Your task to perform on an android device: Is it going to rain this weekend? Image 0: 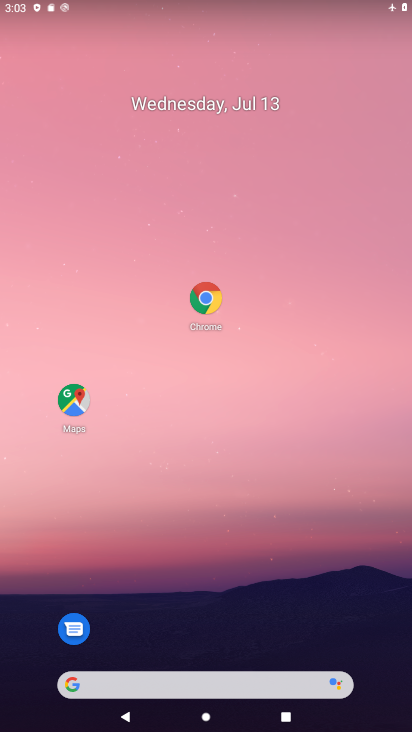
Step 0: drag from (146, 622) to (232, 122)
Your task to perform on an android device: Is it going to rain this weekend? Image 1: 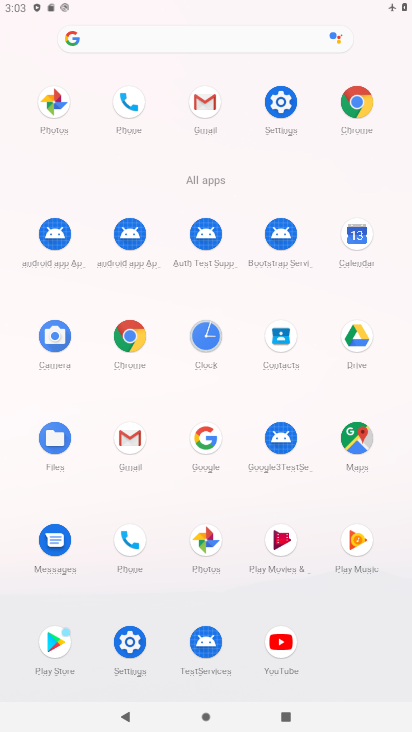
Step 1: click (364, 89)
Your task to perform on an android device: Is it going to rain this weekend? Image 2: 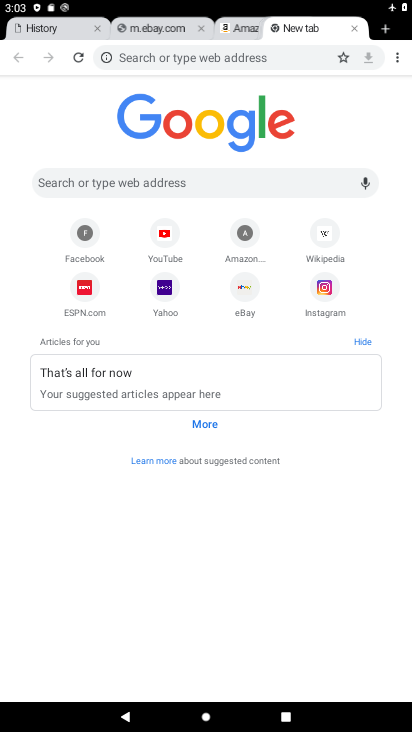
Step 2: click (137, 183)
Your task to perform on an android device: Is it going to rain this weekend? Image 3: 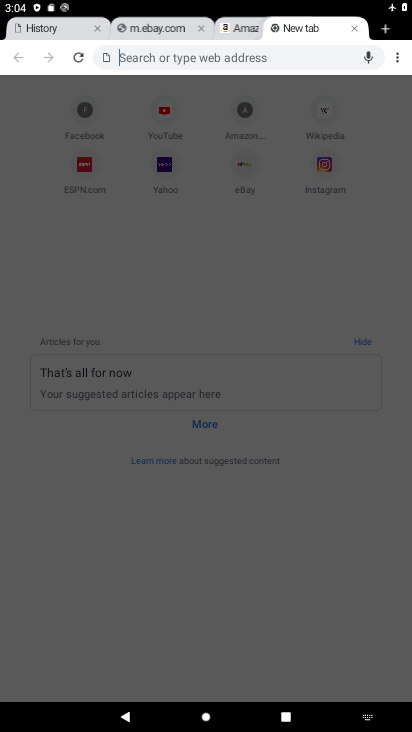
Step 3: type "Is it going to rain this weekend "
Your task to perform on an android device: Is it going to rain this weekend? Image 4: 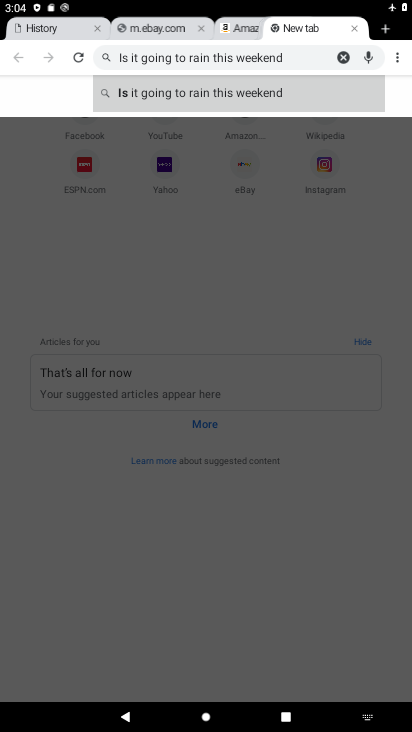
Step 4: click (247, 92)
Your task to perform on an android device: Is it going to rain this weekend? Image 5: 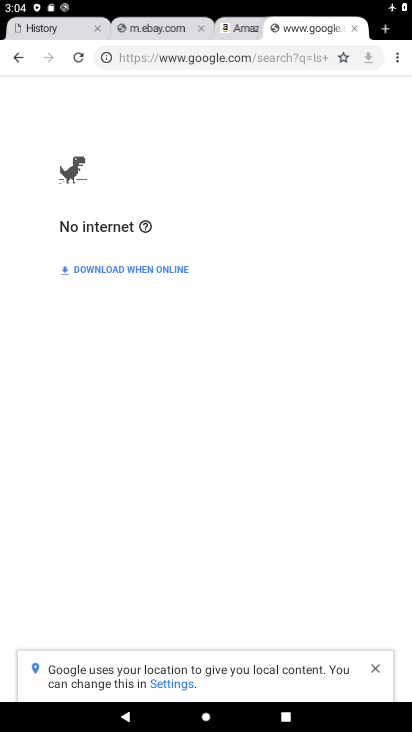
Step 5: task complete